Your task to perform on an android device: Clear all items from cart on amazon. Search for acer nitro on amazon, select the first entry, add it to the cart, then select checkout. Image 0: 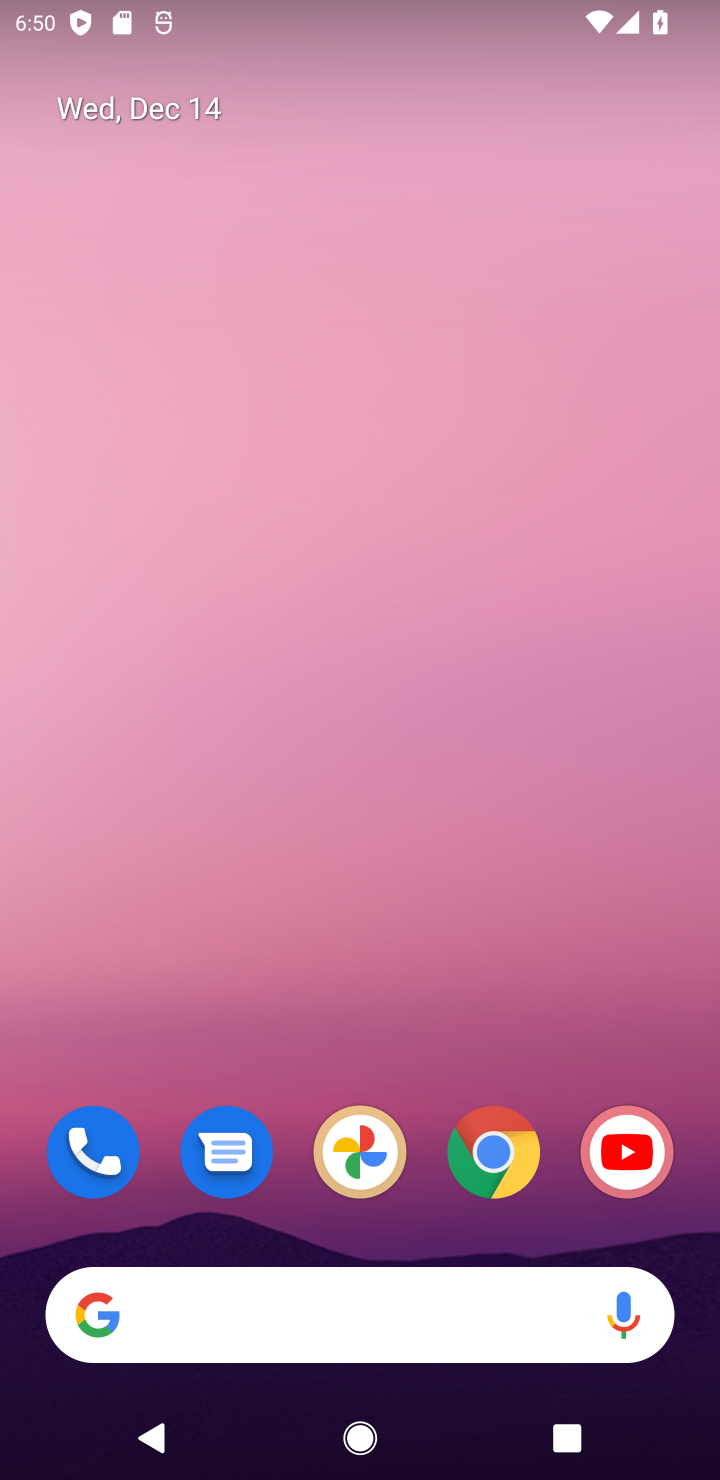
Step 0: click (495, 1167)
Your task to perform on an android device: Clear all items from cart on amazon. Search for acer nitro on amazon, select the first entry, add it to the cart, then select checkout. Image 1: 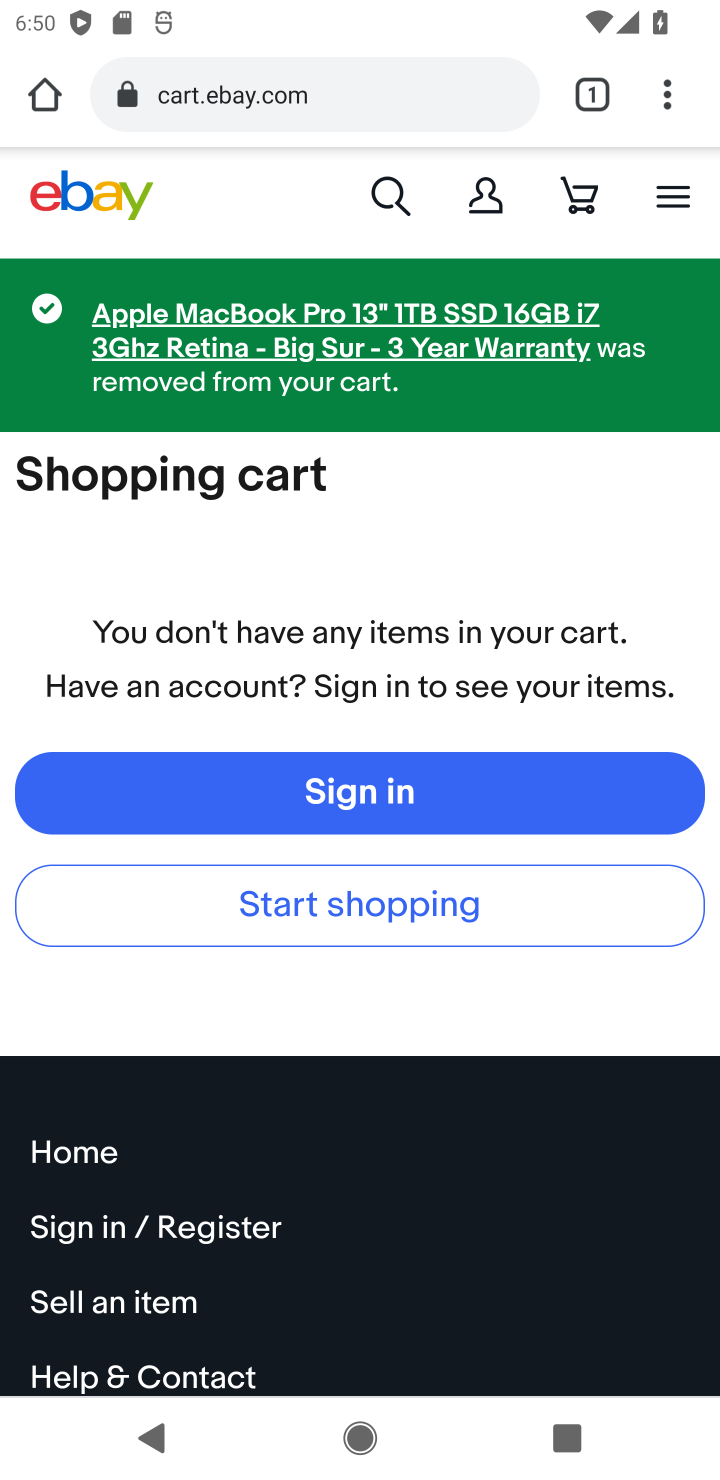
Step 1: click (240, 90)
Your task to perform on an android device: Clear all items from cart on amazon. Search for acer nitro on amazon, select the first entry, add it to the cart, then select checkout. Image 2: 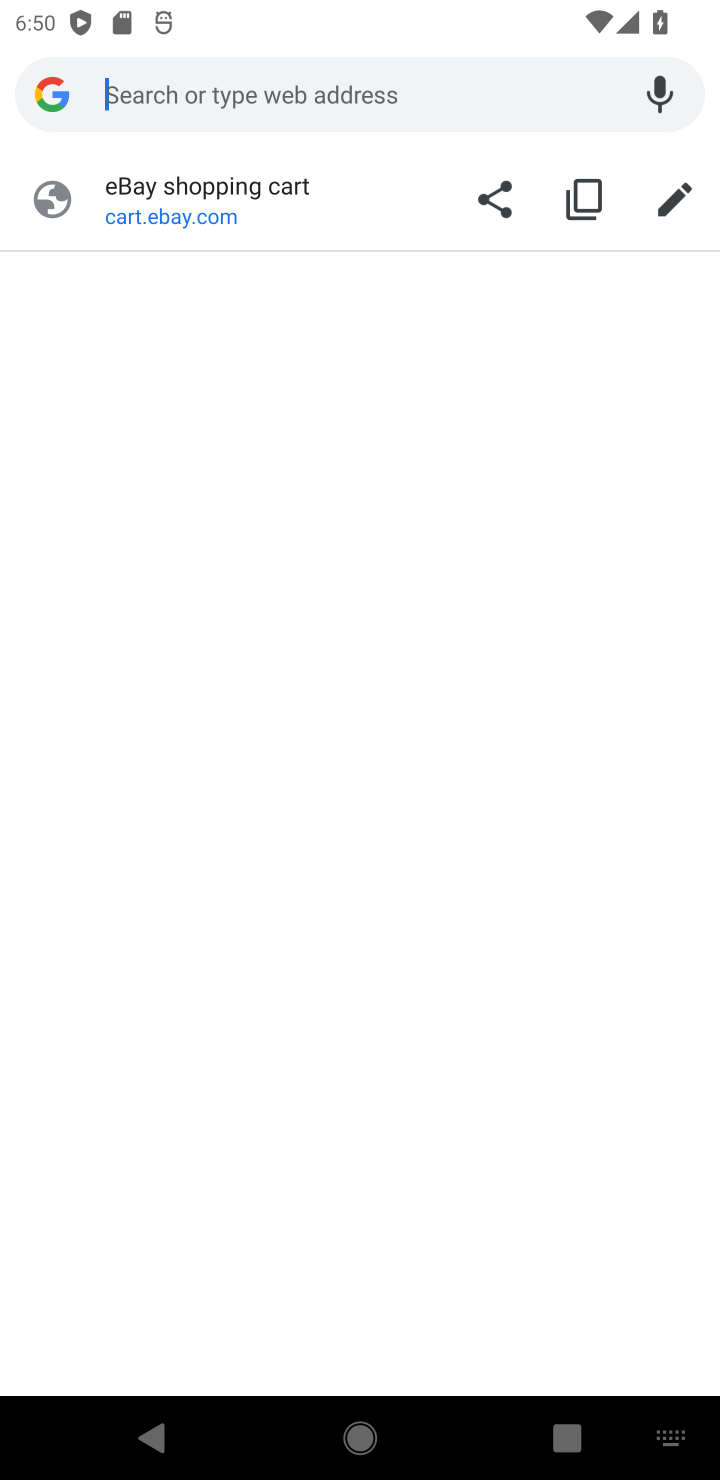
Step 2: type "amazon.com"
Your task to perform on an android device: Clear all items from cart on amazon. Search for acer nitro on amazon, select the first entry, add it to the cart, then select checkout. Image 3: 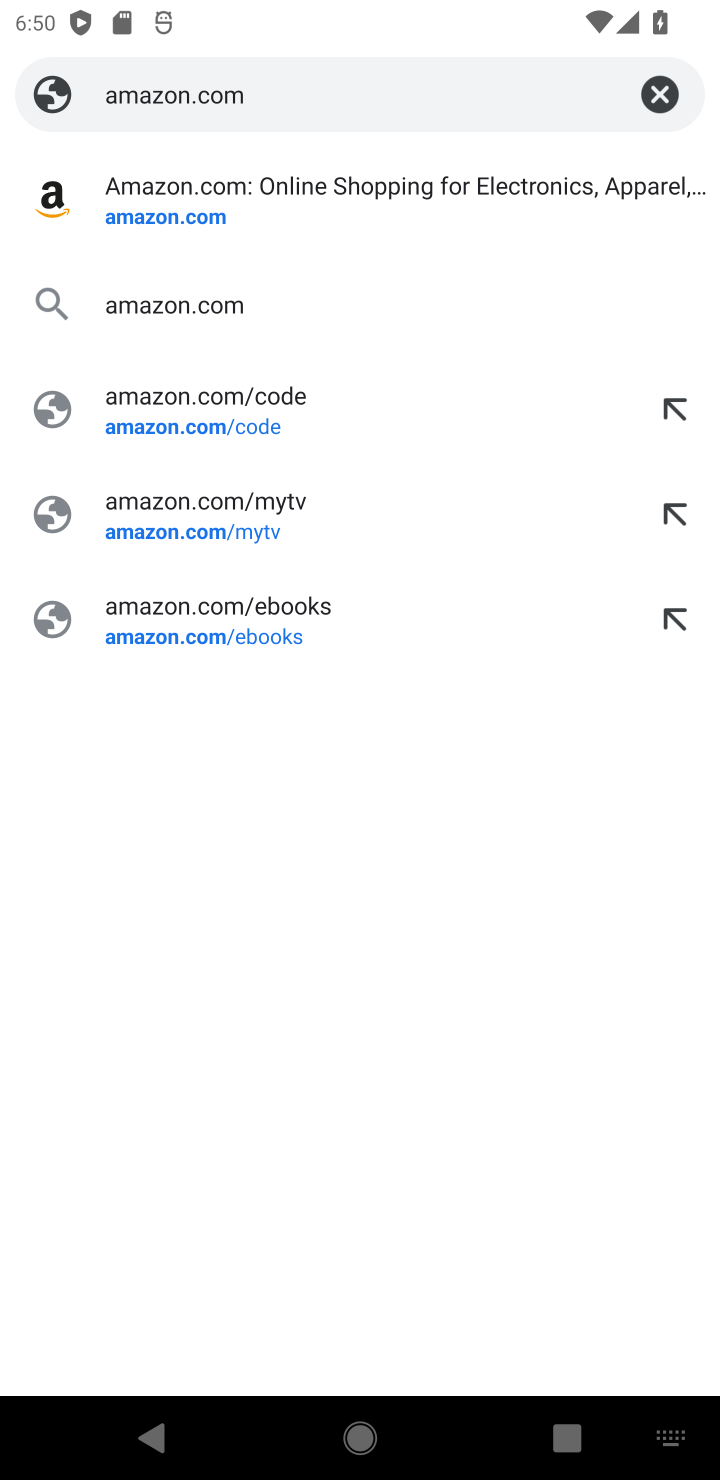
Step 3: click (182, 214)
Your task to perform on an android device: Clear all items from cart on amazon. Search for acer nitro on amazon, select the first entry, add it to the cart, then select checkout. Image 4: 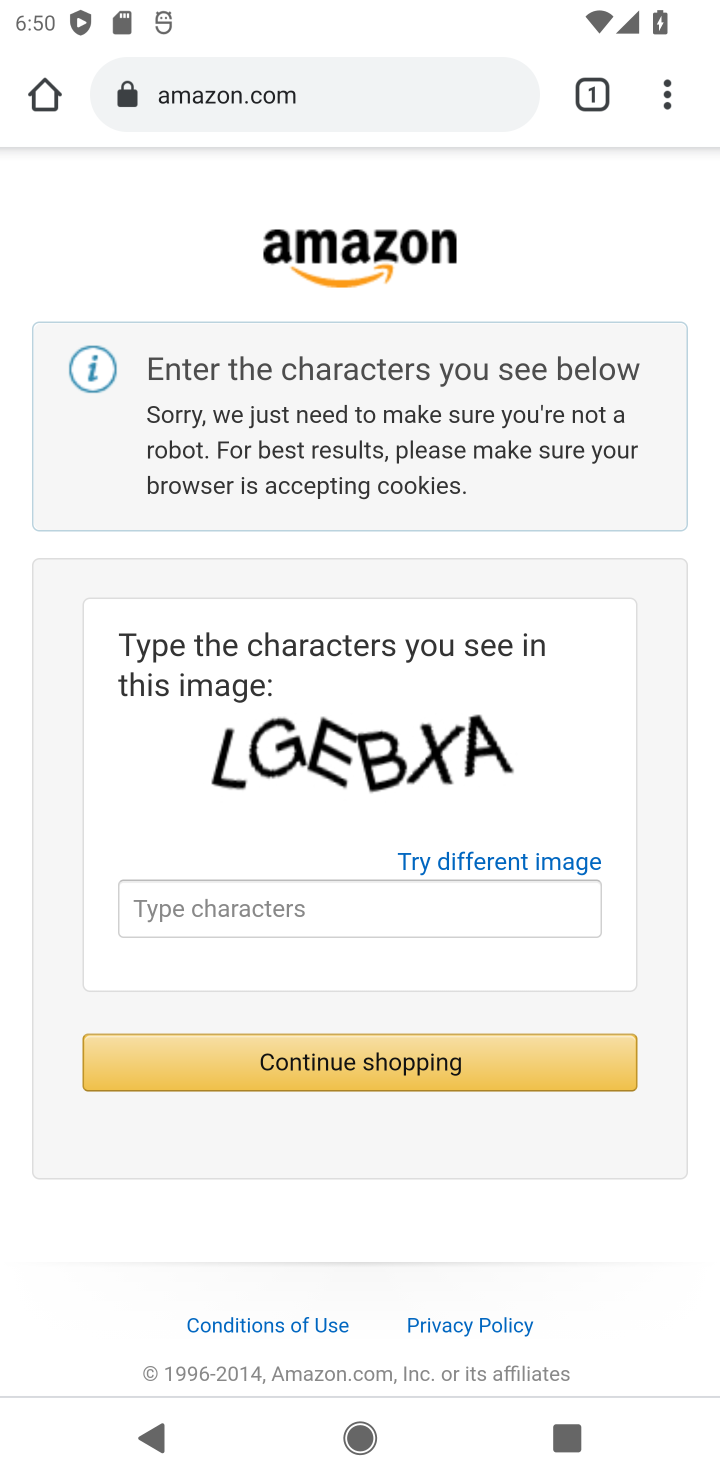
Step 4: click (319, 900)
Your task to perform on an android device: Clear all items from cart on amazon. Search for acer nitro on amazon, select the first entry, add it to the cart, then select checkout. Image 5: 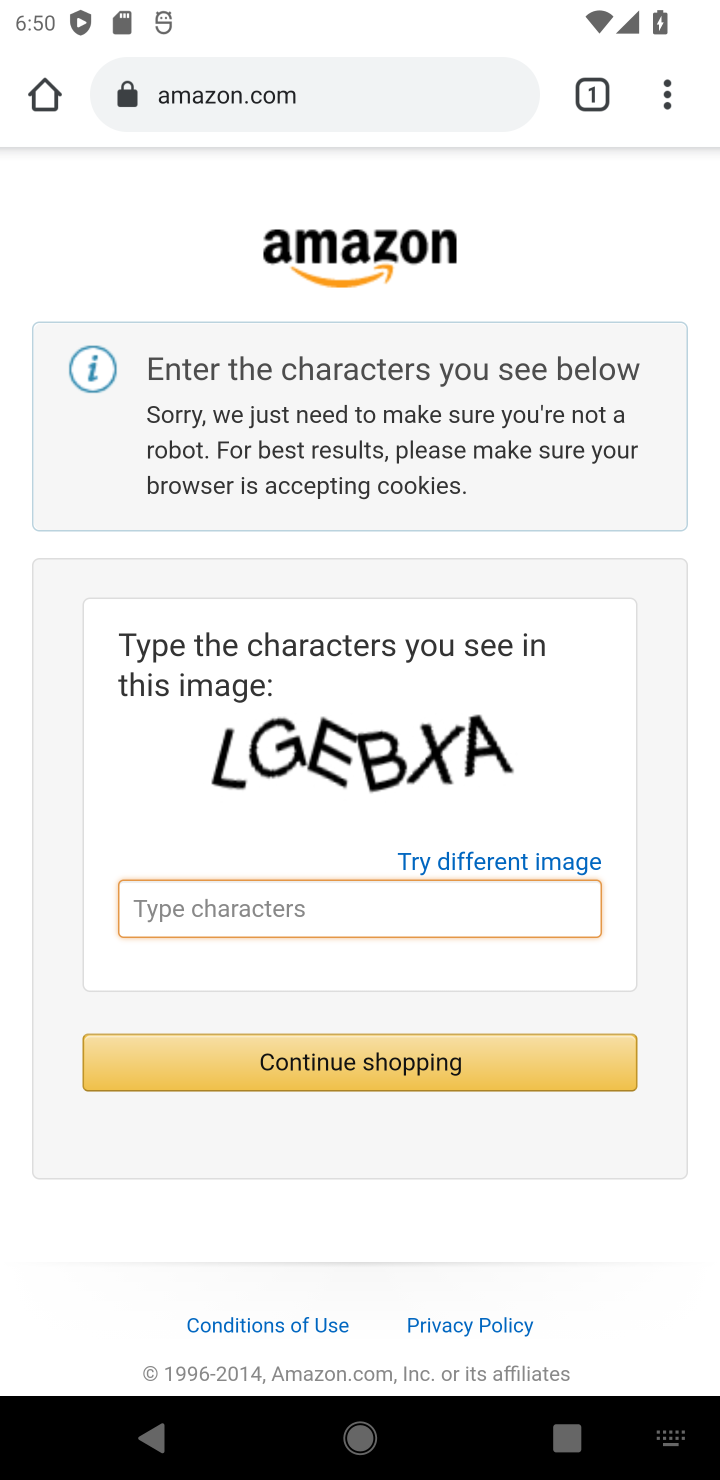
Step 5: type "LGEBXA"
Your task to perform on an android device: Clear all items from cart on amazon. Search for acer nitro on amazon, select the first entry, add it to the cart, then select checkout. Image 6: 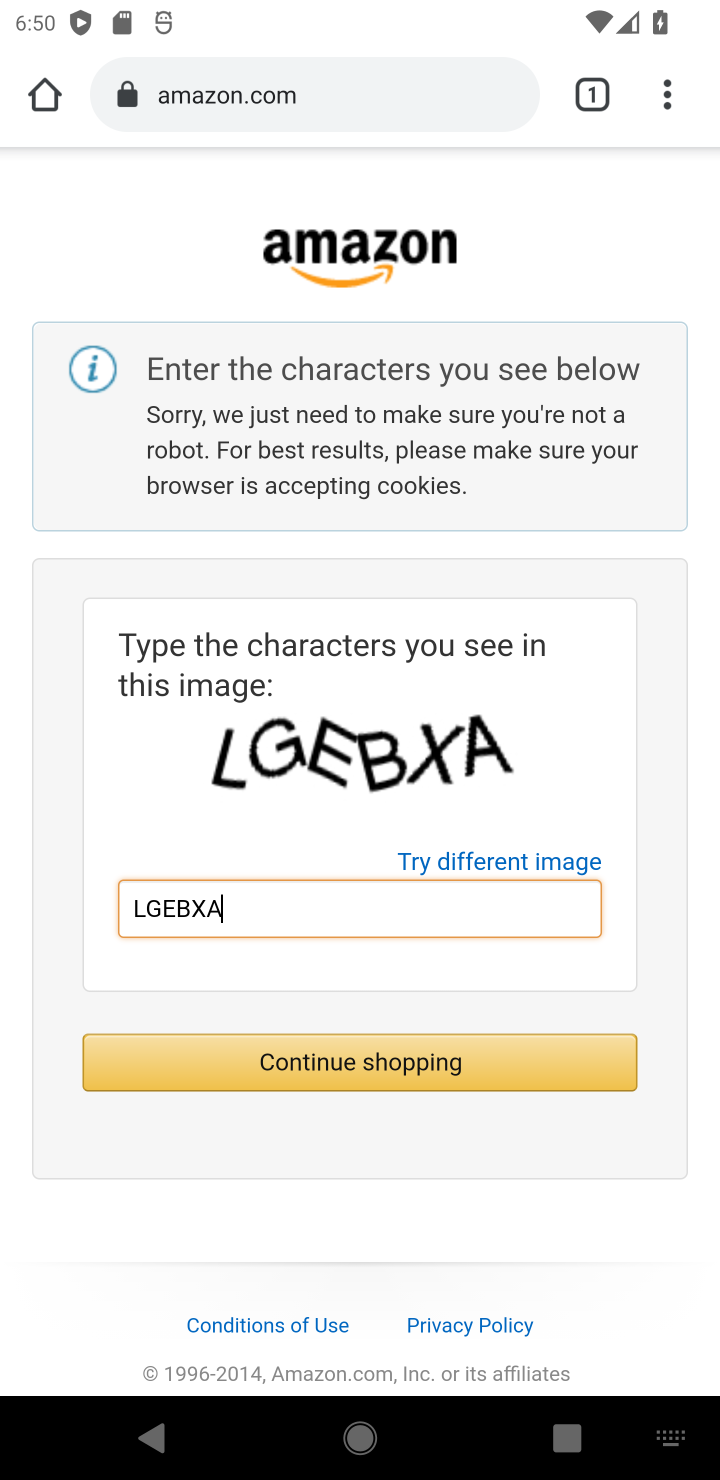
Step 6: click (343, 1054)
Your task to perform on an android device: Clear all items from cart on amazon. Search for acer nitro on amazon, select the first entry, add it to the cart, then select checkout. Image 7: 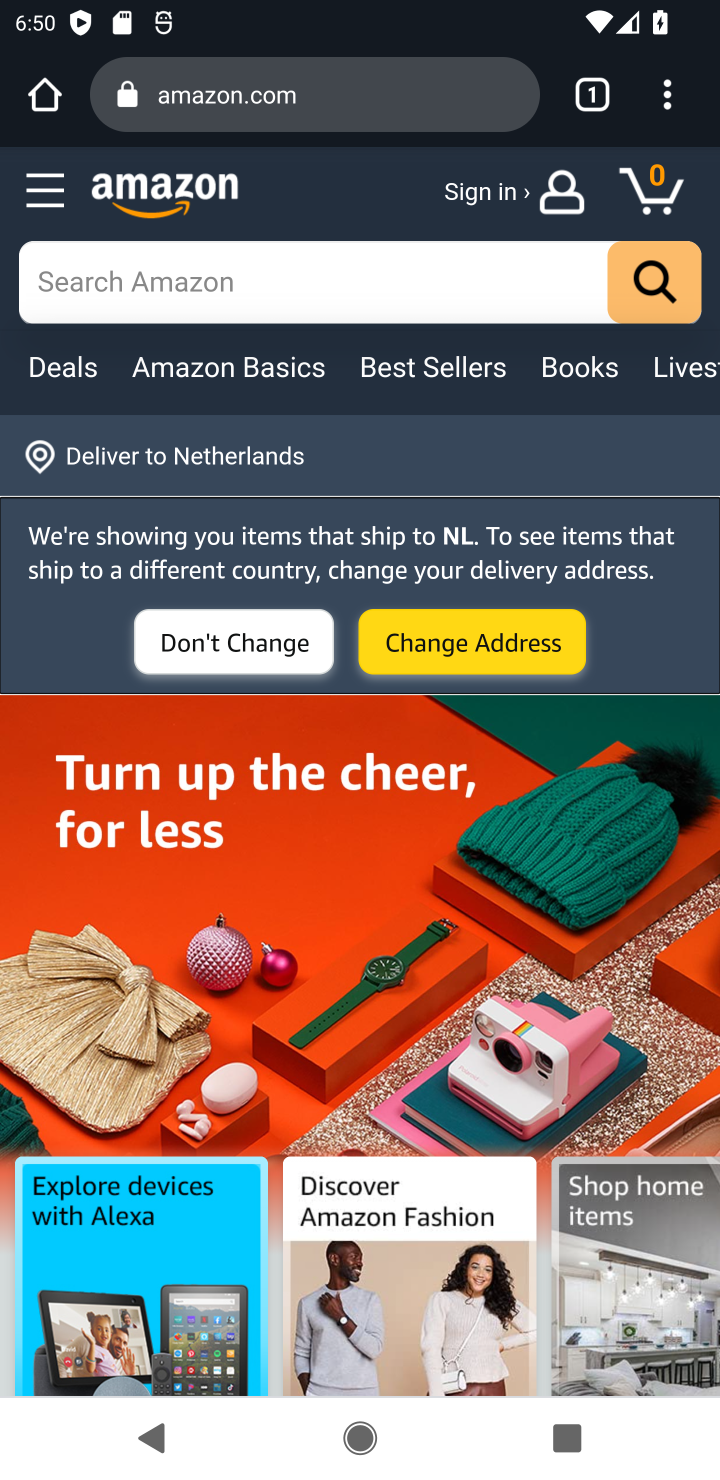
Step 7: click (652, 193)
Your task to perform on an android device: Clear all items from cart on amazon. Search for acer nitro on amazon, select the first entry, add it to the cart, then select checkout. Image 8: 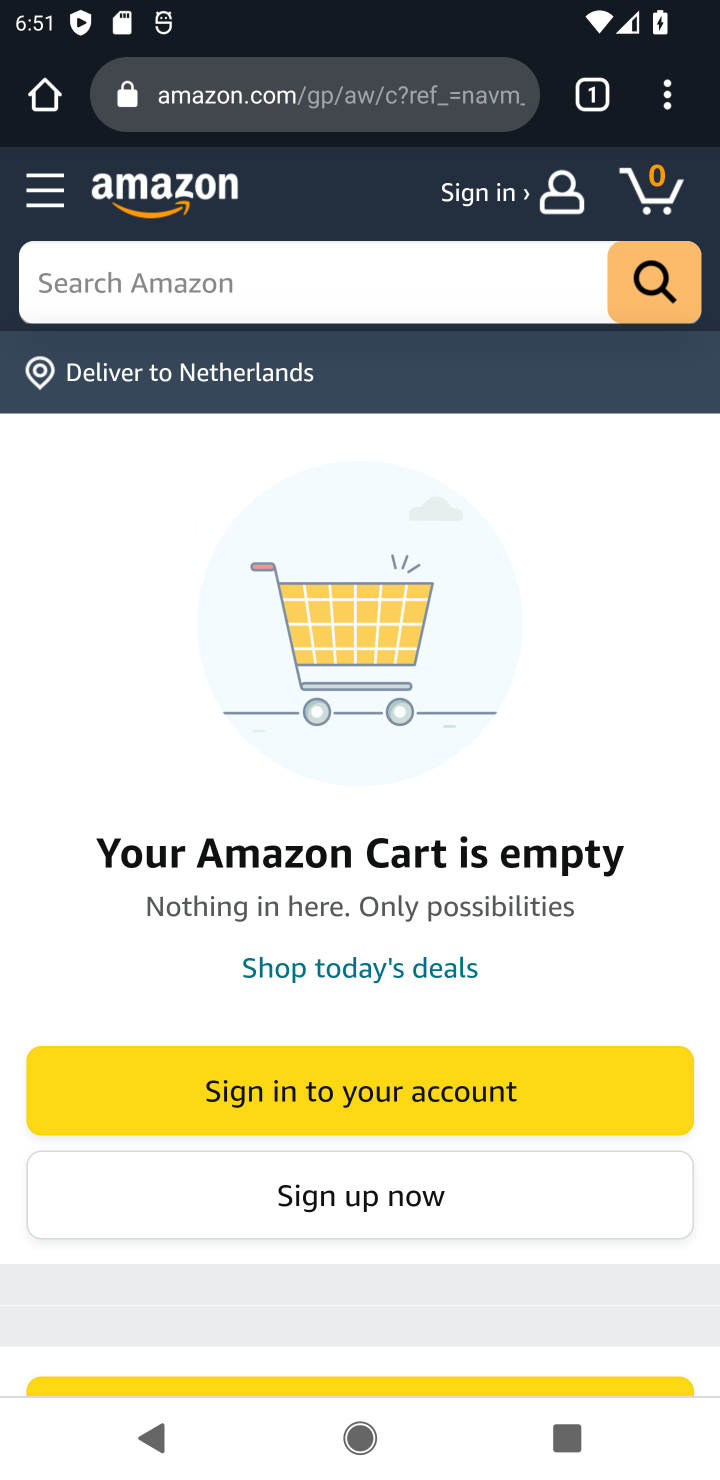
Step 8: click (190, 297)
Your task to perform on an android device: Clear all items from cart on amazon. Search for acer nitro on amazon, select the first entry, add it to the cart, then select checkout. Image 9: 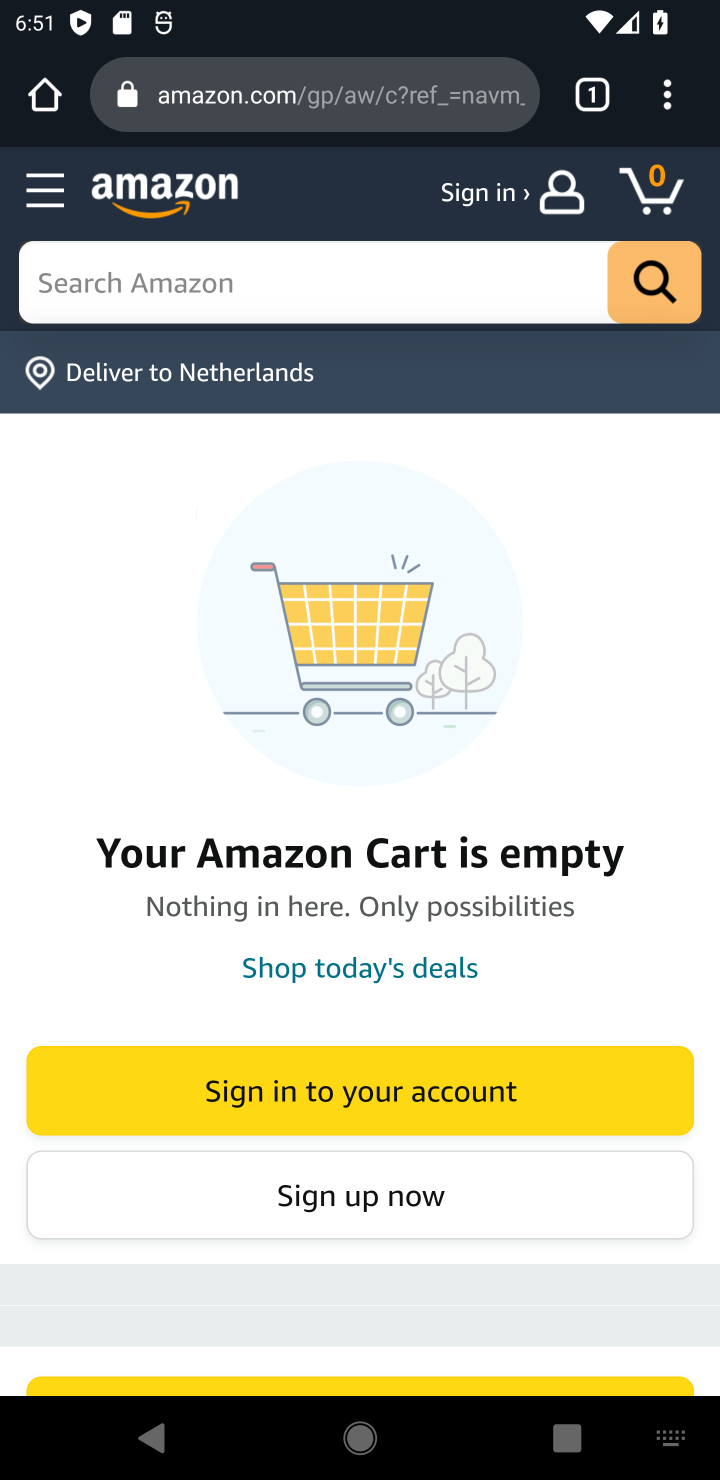
Step 9: type "acer nitro"
Your task to perform on an android device: Clear all items from cart on amazon. Search for acer nitro on amazon, select the first entry, add it to the cart, then select checkout. Image 10: 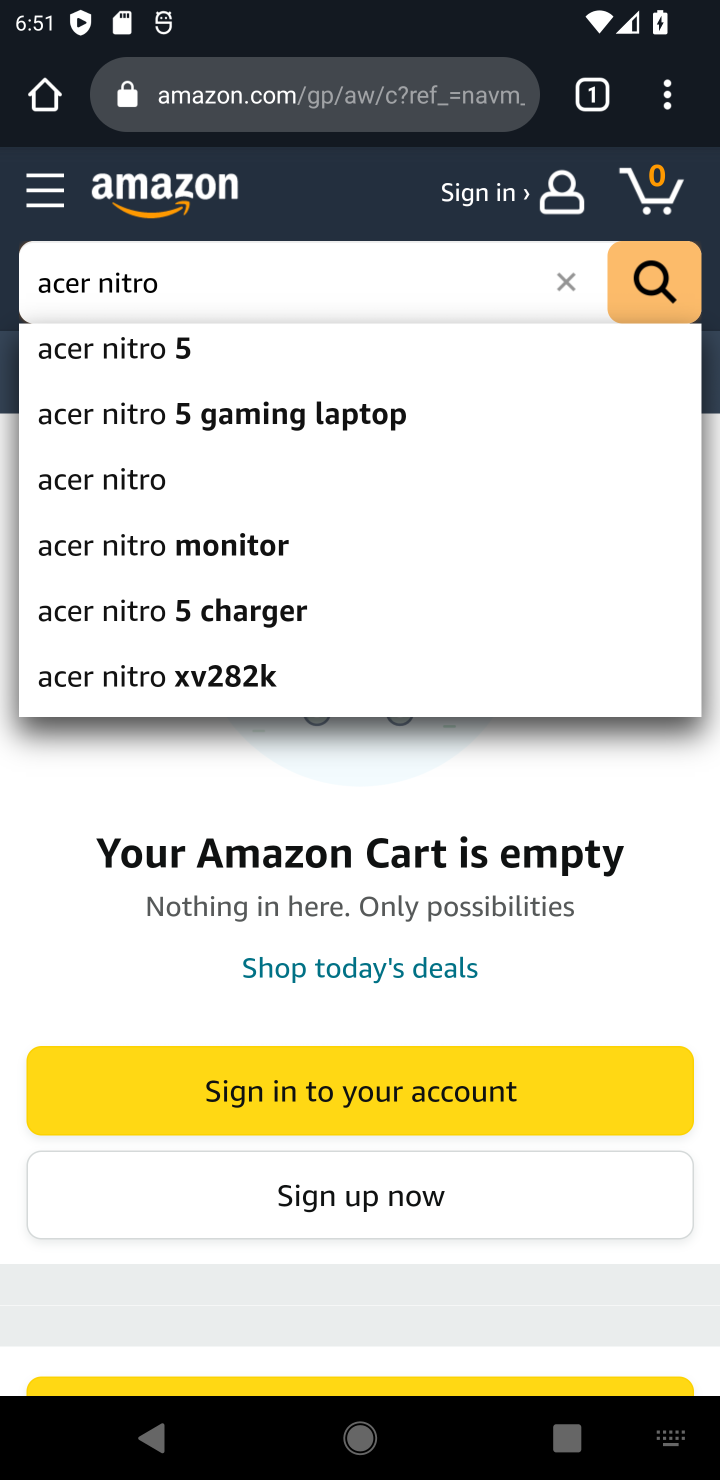
Step 10: click (93, 486)
Your task to perform on an android device: Clear all items from cart on amazon. Search for acer nitro on amazon, select the first entry, add it to the cart, then select checkout. Image 11: 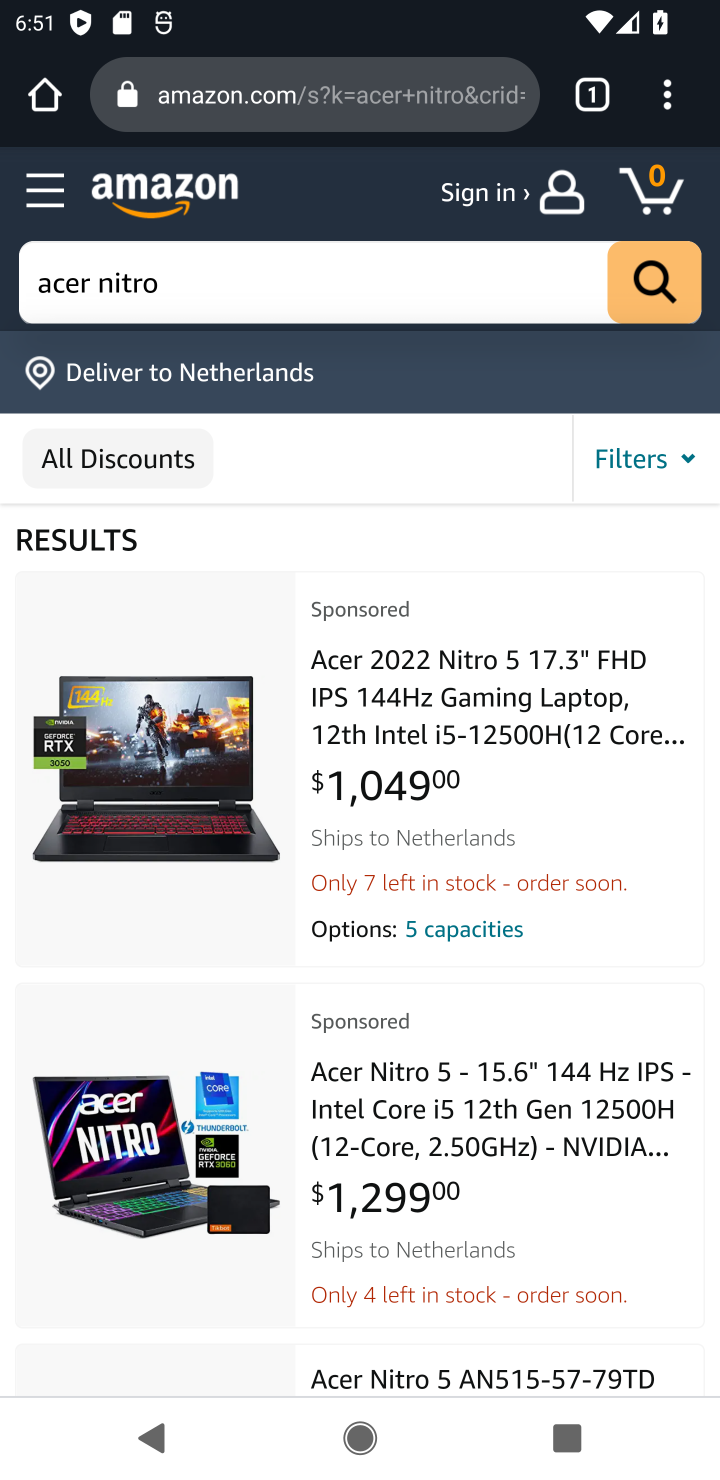
Step 11: click (389, 717)
Your task to perform on an android device: Clear all items from cart on amazon. Search for acer nitro on amazon, select the first entry, add it to the cart, then select checkout. Image 12: 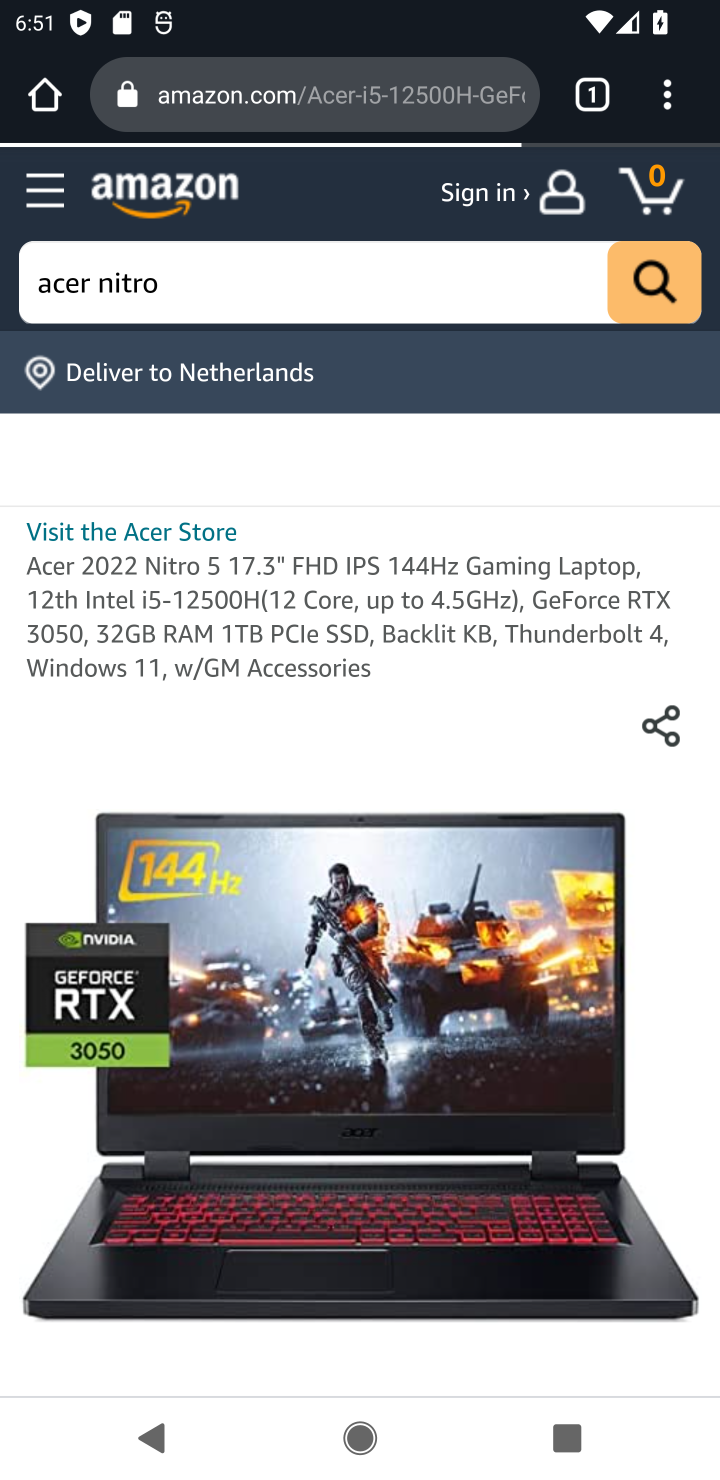
Step 12: drag from (326, 966) to (327, 416)
Your task to perform on an android device: Clear all items from cart on amazon. Search for acer nitro on amazon, select the first entry, add it to the cart, then select checkout. Image 13: 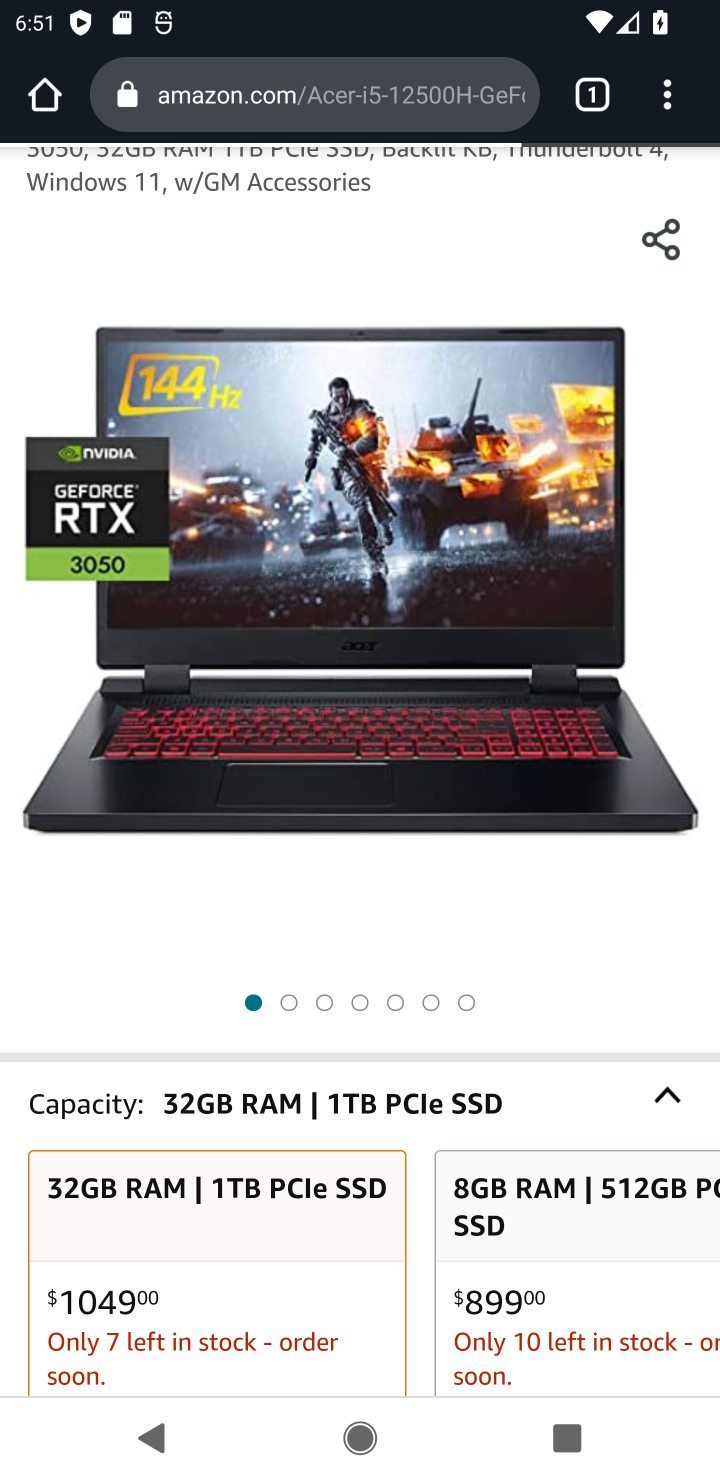
Step 13: drag from (259, 851) to (257, 417)
Your task to perform on an android device: Clear all items from cart on amazon. Search for acer nitro on amazon, select the first entry, add it to the cart, then select checkout. Image 14: 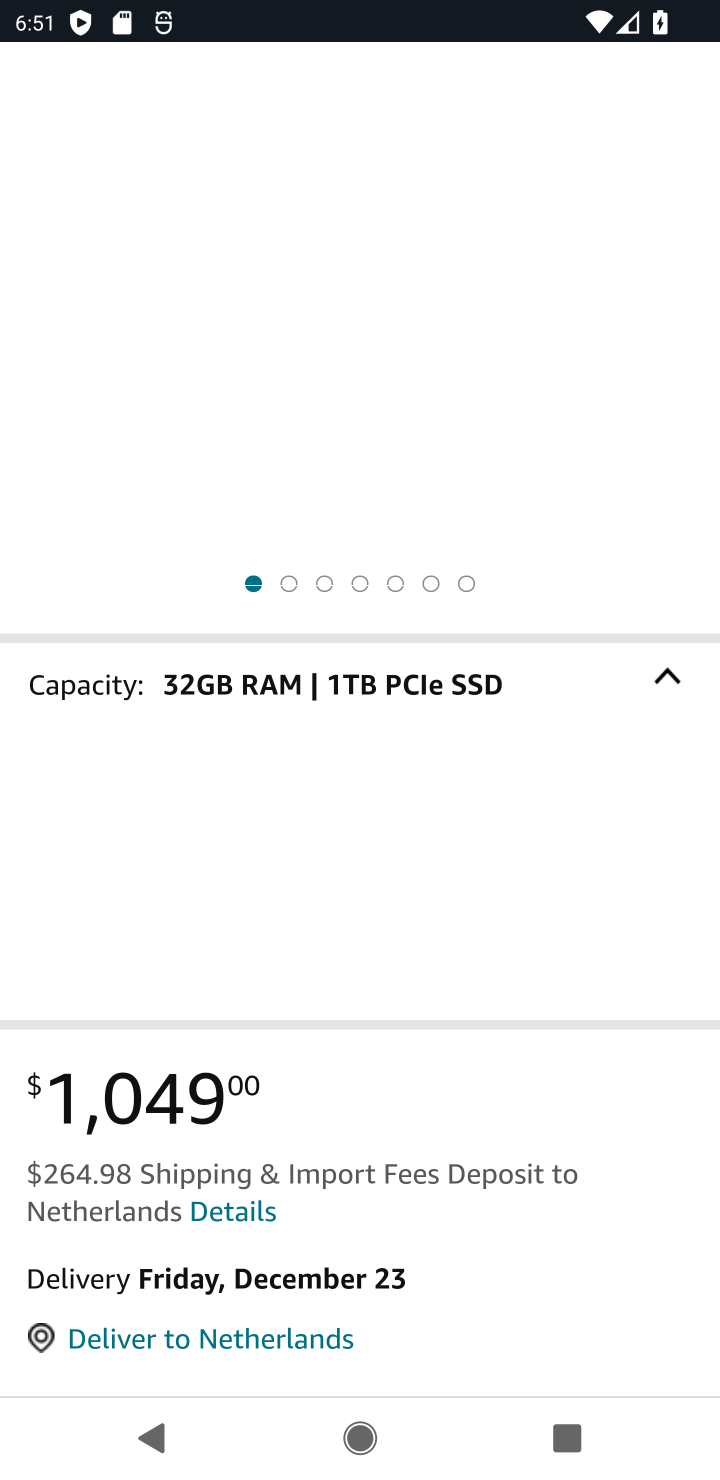
Step 14: drag from (312, 1019) to (332, 495)
Your task to perform on an android device: Clear all items from cart on amazon. Search for acer nitro on amazon, select the first entry, add it to the cart, then select checkout. Image 15: 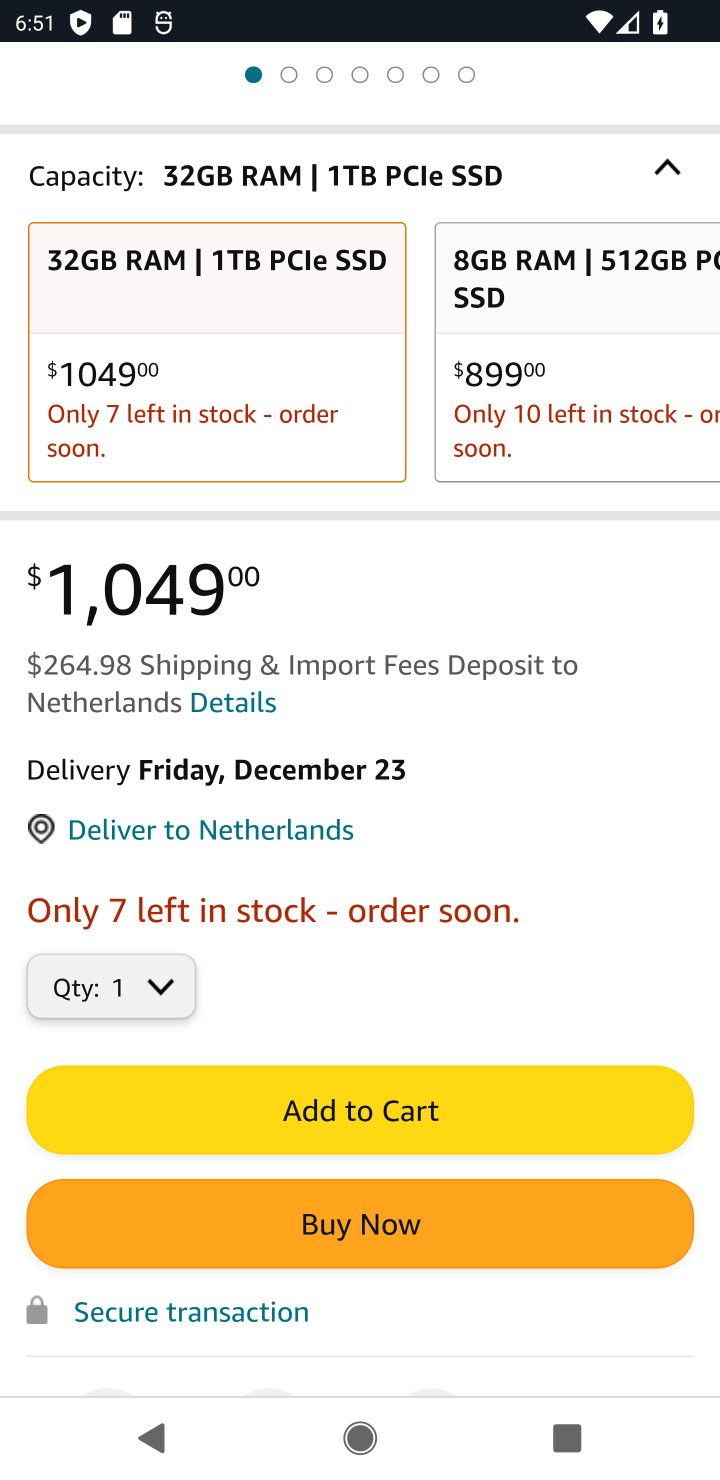
Step 15: click (323, 1099)
Your task to perform on an android device: Clear all items from cart on amazon. Search for acer nitro on amazon, select the first entry, add it to the cart, then select checkout. Image 16: 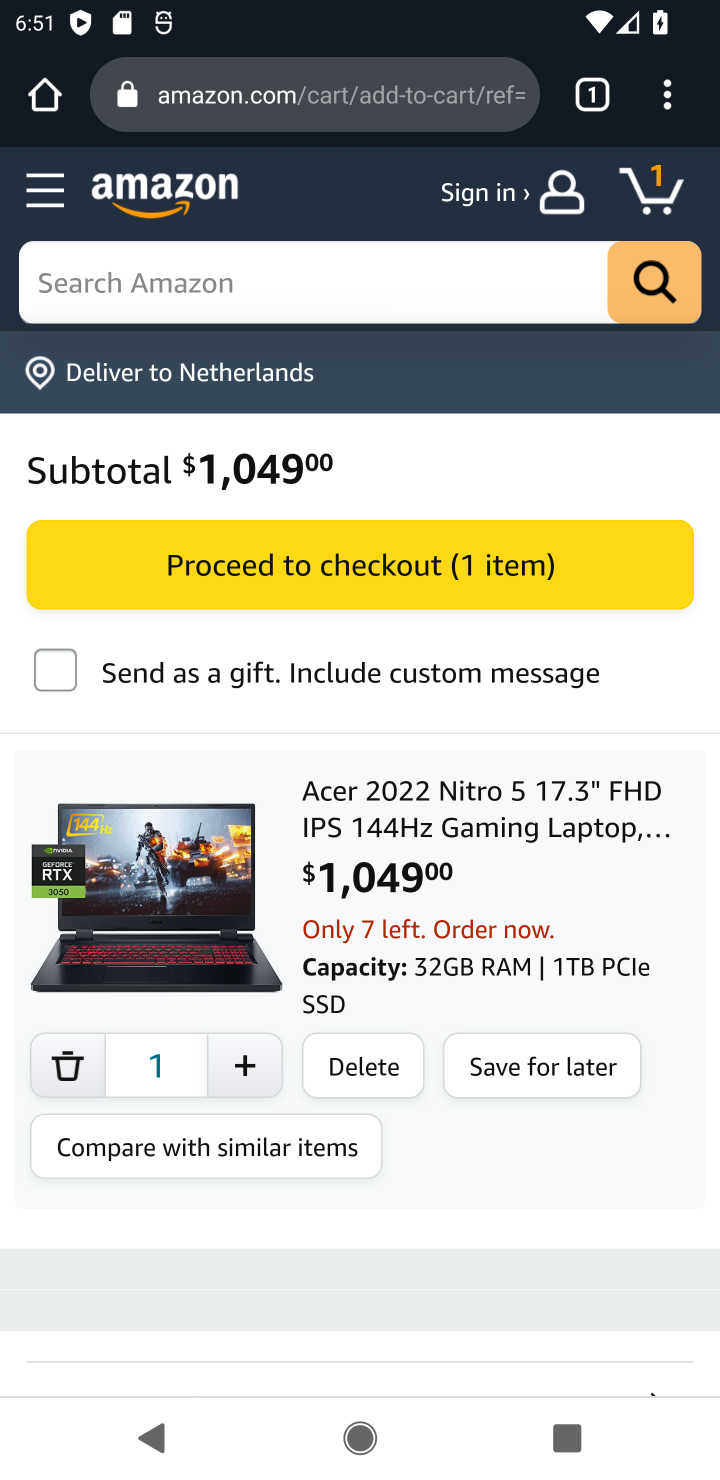
Step 16: click (320, 561)
Your task to perform on an android device: Clear all items from cart on amazon. Search for acer nitro on amazon, select the first entry, add it to the cart, then select checkout. Image 17: 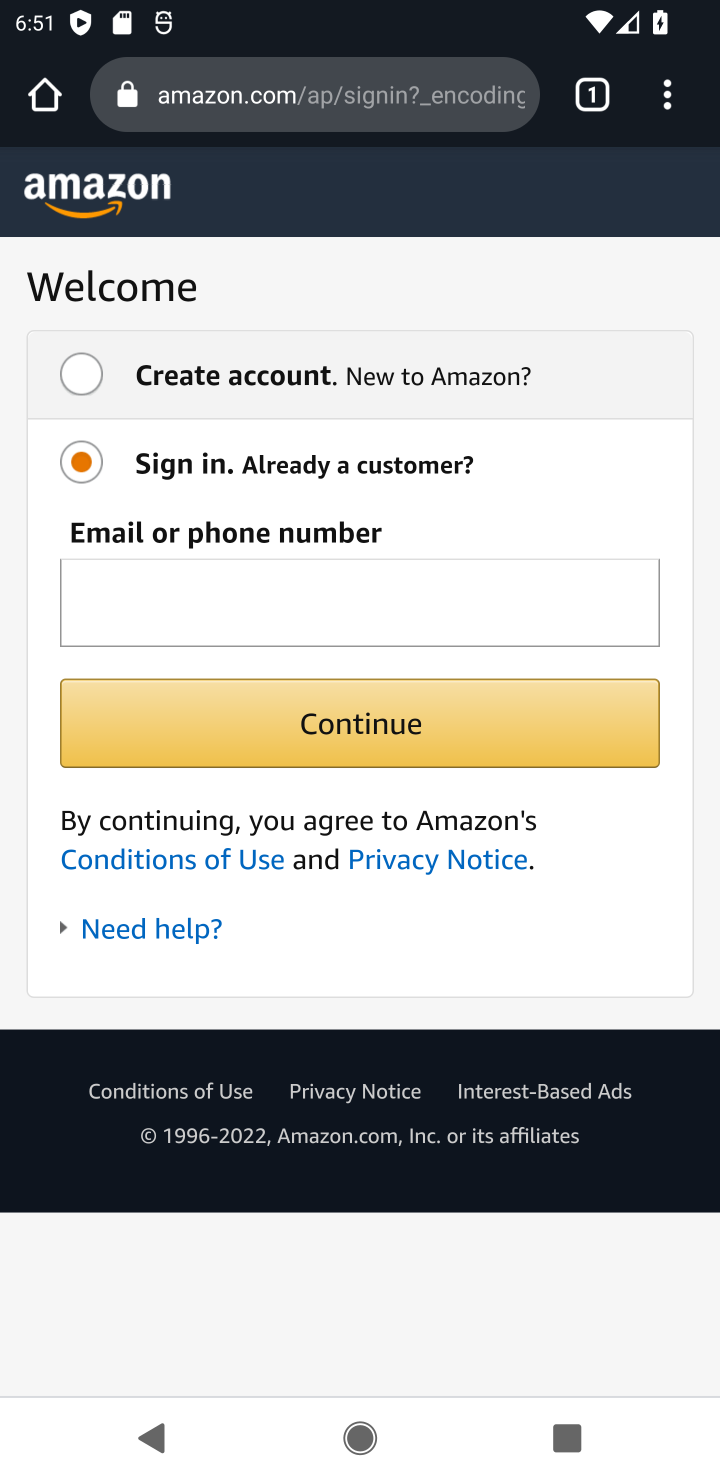
Step 17: task complete